Your task to perform on an android device: Open internet settings Image 0: 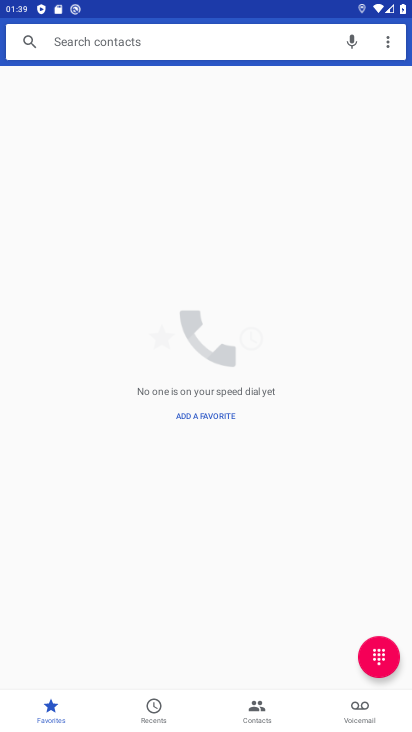
Step 0: press home button
Your task to perform on an android device: Open internet settings Image 1: 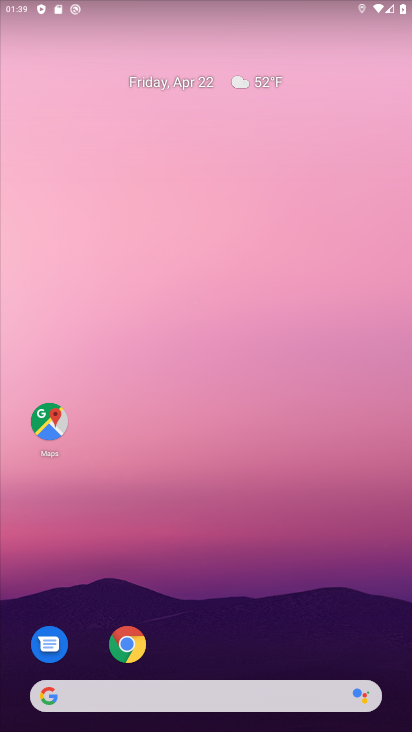
Step 1: drag from (226, 636) to (237, 132)
Your task to perform on an android device: Open internet settings Image 2: 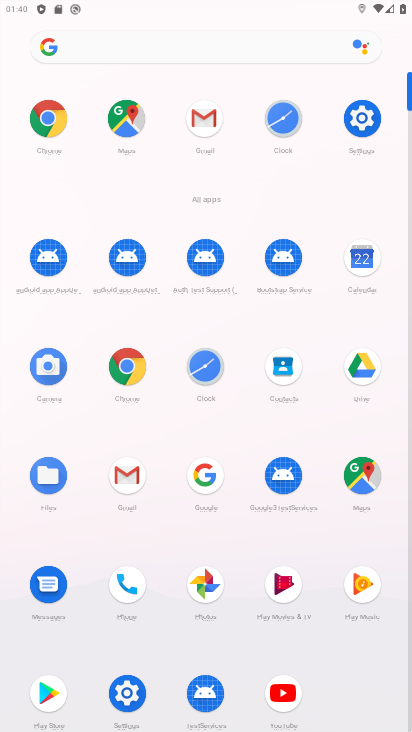
Step 2: click (371, 137)
Your task to perform on an android device: Open internet settings Image 3: 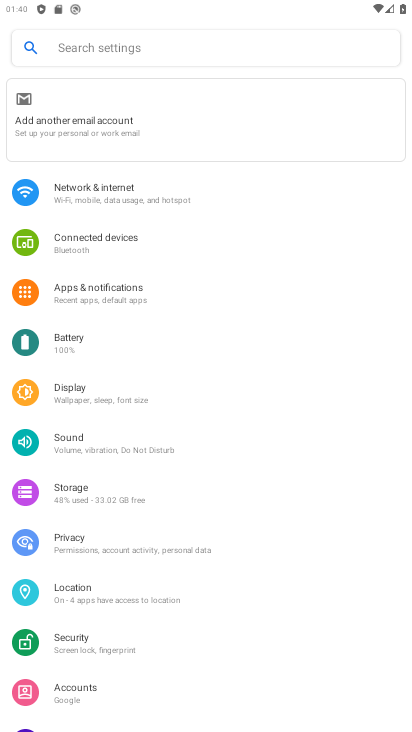
Step 3: click (315, 192)
Your task to perform on an android device: Open internet settings Image 4: 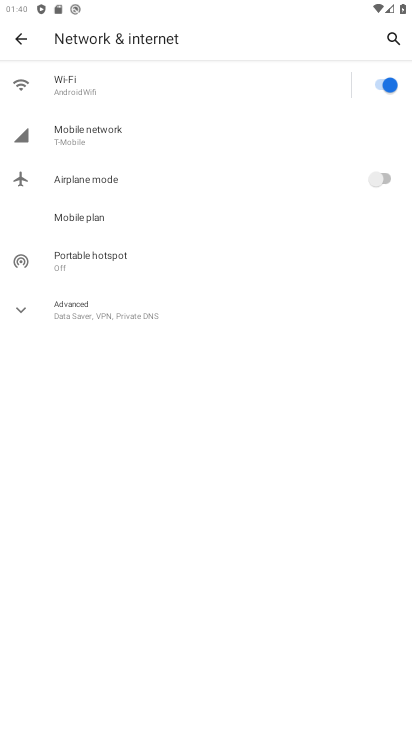
Step 4: task complete